Your task to perform on an android device: open device folders in google photos Image 0: 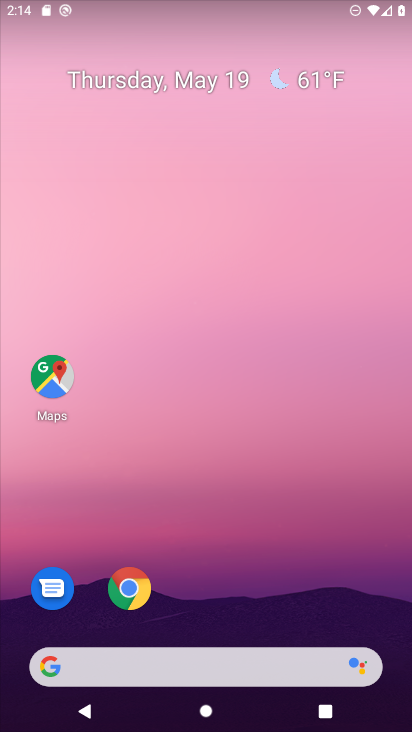
Step 0: drag from (331, 609) to (284, 7)
Your task to perform on an android device: open device folders in google photos Image 1: 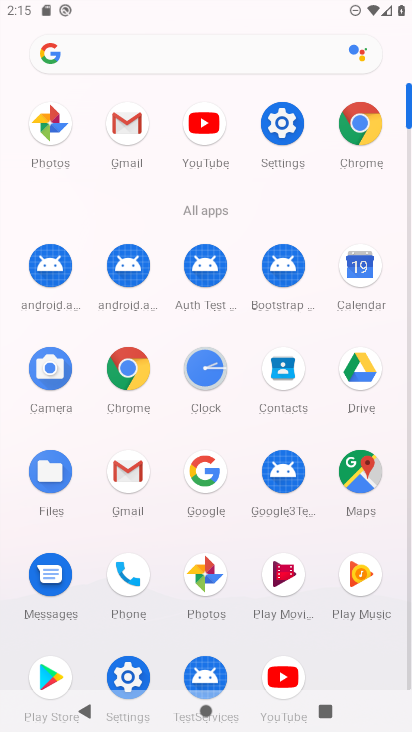
Step 1: click (217, 569)
Your task to perform on an android device: open device folders in google photos Image 2: 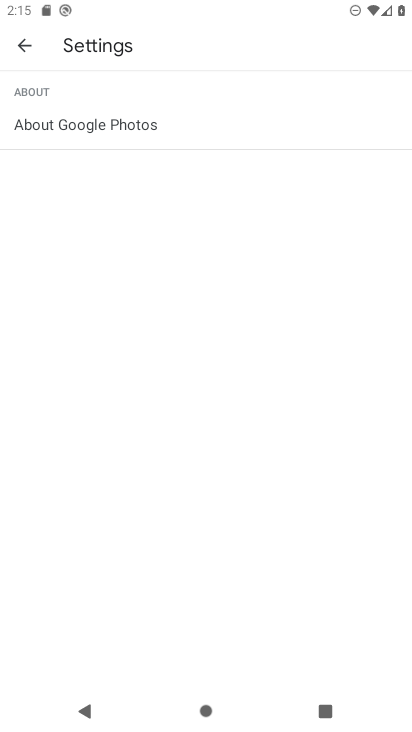
Step 2: click (26, 53)
Your task to perform on an android device: open device folders in google photos Image 3: 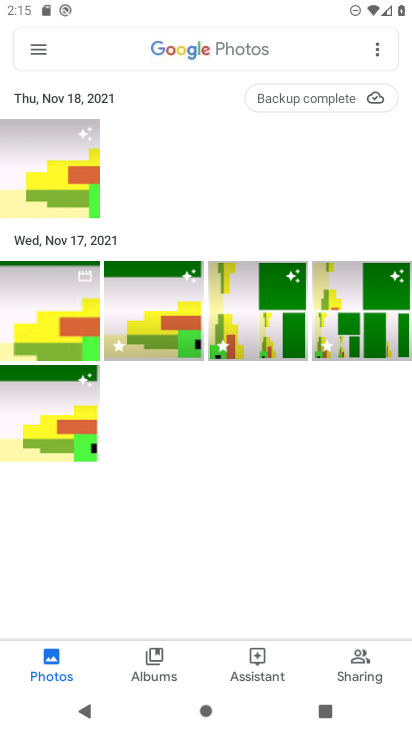
Step 3: click (33, 50)
Your task to perform on an android device: open device folders in google photos Image 4: 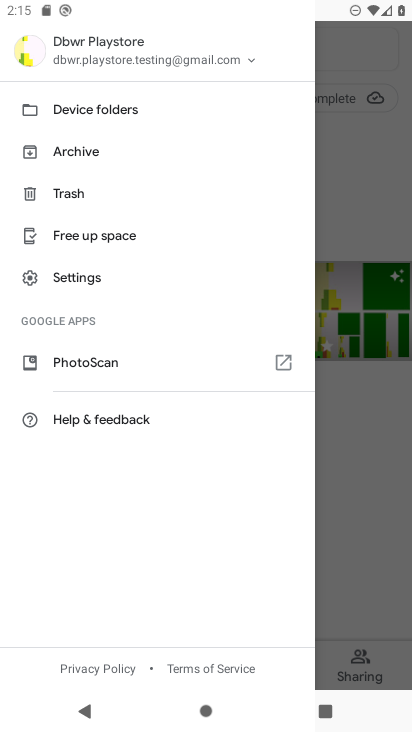
Step 4: click (67, 111)
Your task to perform on an android device: open device folders in google photos Image 5: 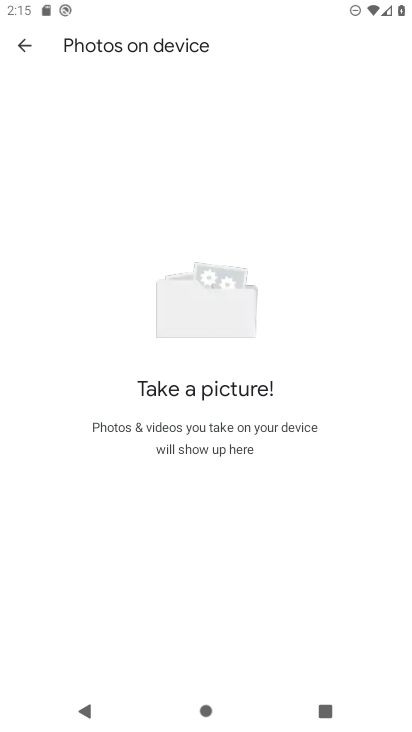
Step 5: task complete